Your task to perform on an android device: Go to internet settings Image 0: 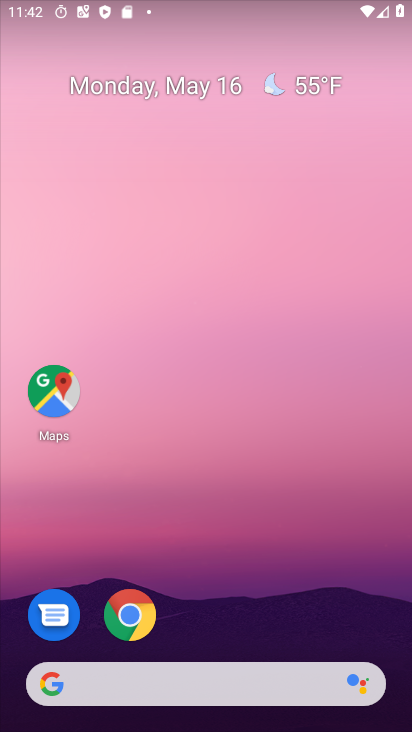
Step 0: drag from (259, 619) to (297, 107)
Your task to perform on an android device: Go to internet settings Image 1: 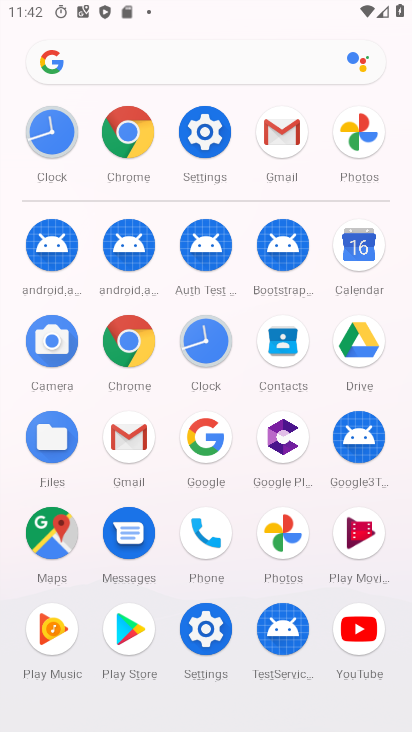
Step 1: click (207, 130)
Your task to perform on an android device: Go to internet settings Image 2: 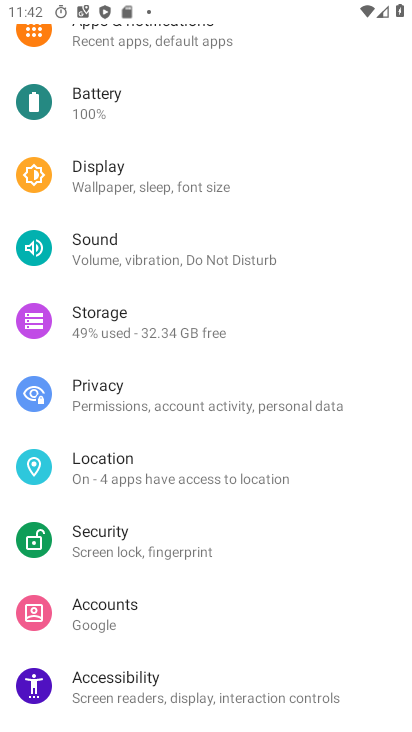
Step 2: drag from (284, 135) to (277, 530)
Your task to perform on an android device: Go to internet settings Image 3: 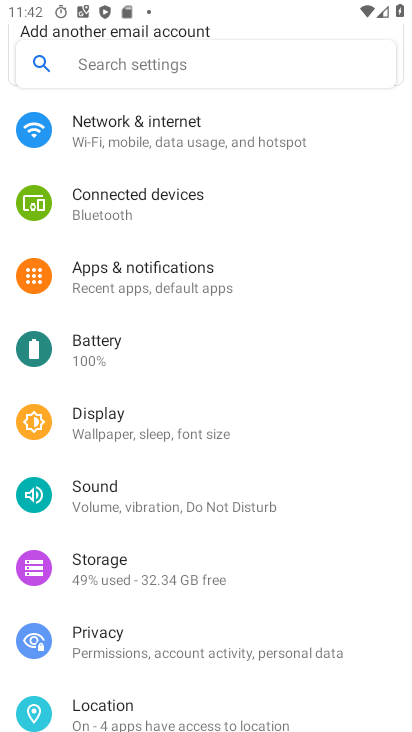
Step 3: click (155, 130)
Your task to perform on an android device: Go to internet settings Image 4: 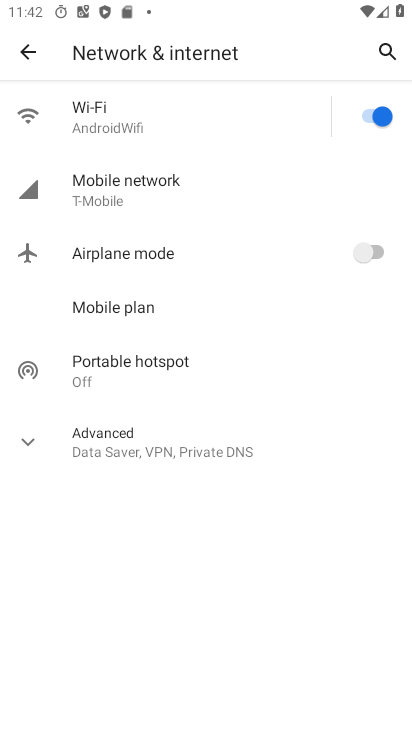
Step 4: task complete